Your task to perform on an android device: What's on my calendar today? Image 0: 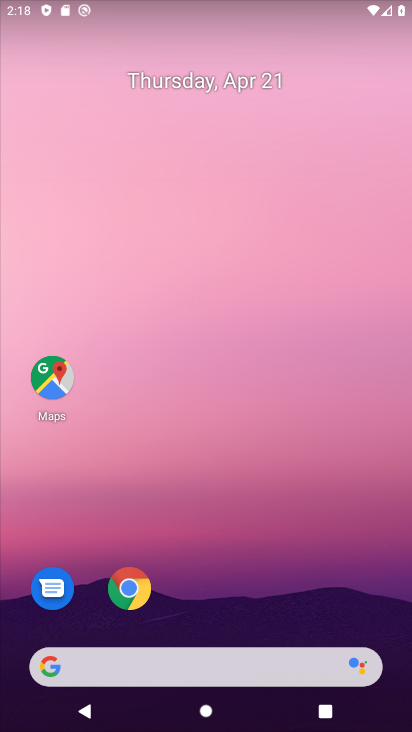
Step 0: drag from (281, 674) to (186, 222)
Your task to perform on an android device: What's on my calendar today? Image 1: 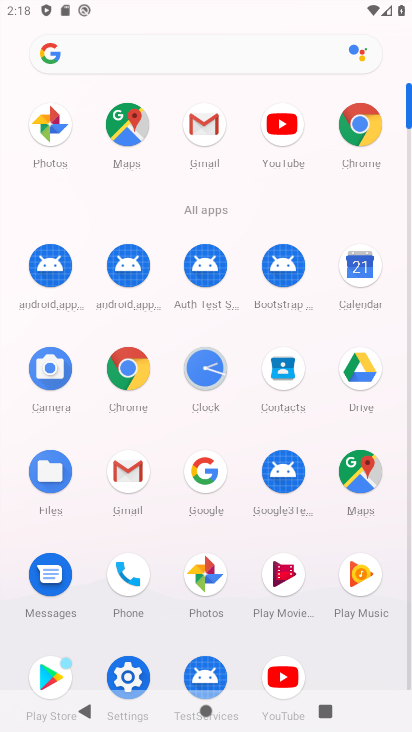
Step 1: click (351, 284)
Your task to perform on an android device: What's on my calendar today? Image 2: 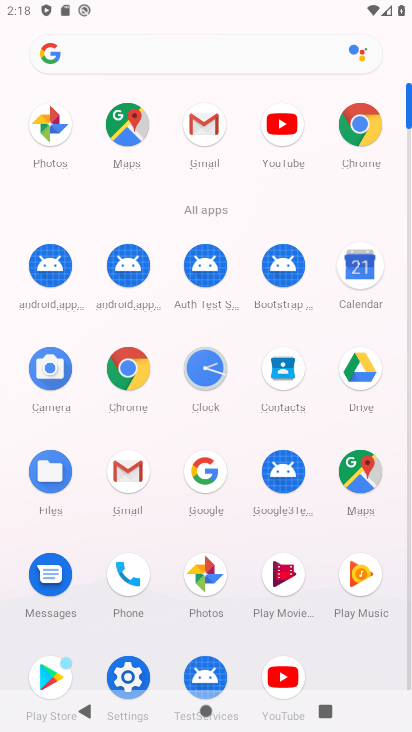
Step 2: click (351, 284)
Your task to perform on an android device: What's on my calendar today? Image 3: 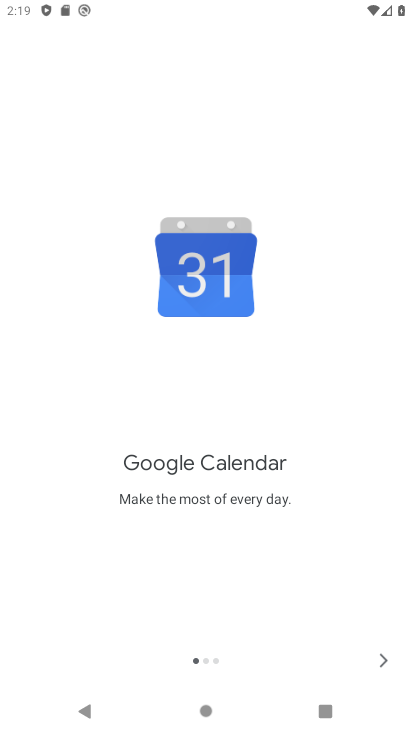
Step 3: click (391, 661)
Your task to perform on an android device: What's on my calendar today? Image 4: 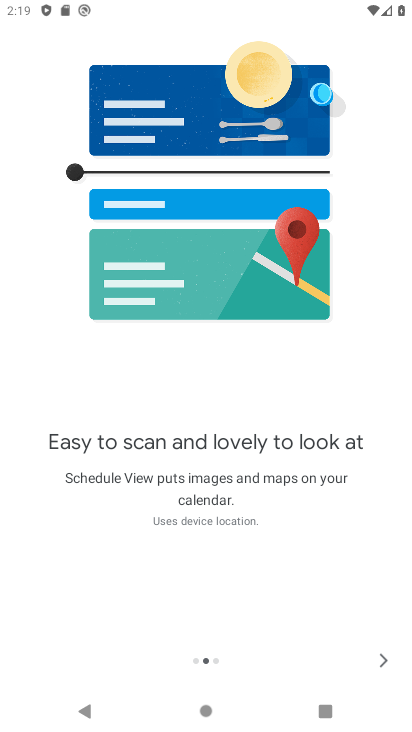
Step 4: click (373, 661)
Your task to perform on an android device: What's on my calendar today? Image 5: 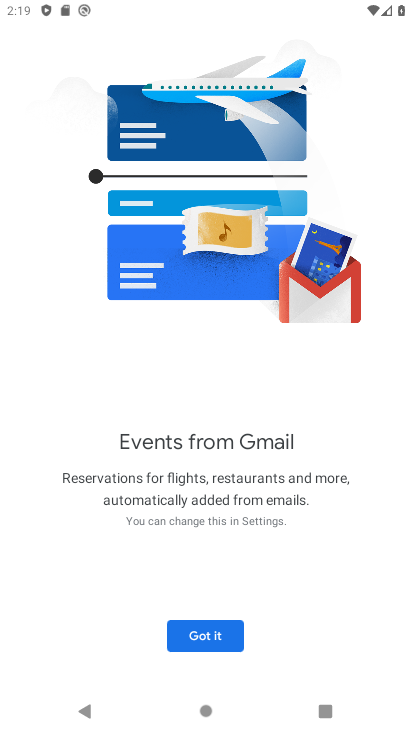
Step 5: click (195, 642)
Your task to perform on an android device: What's on my calendar today? Image 6: 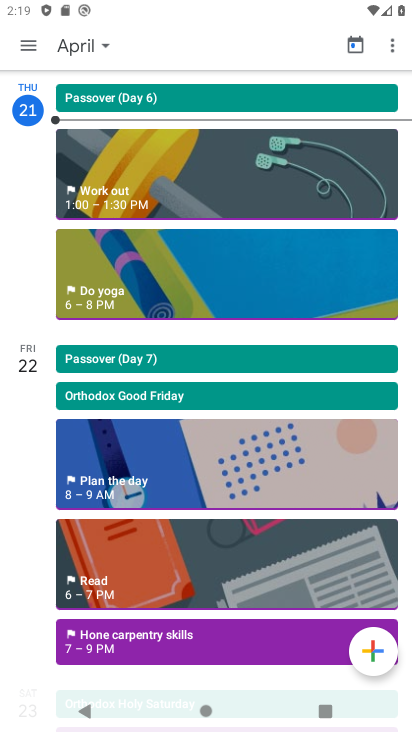
Step 6: task complete